Your task to perform on an android device: What's on my calendar tomorrow? Image 0: 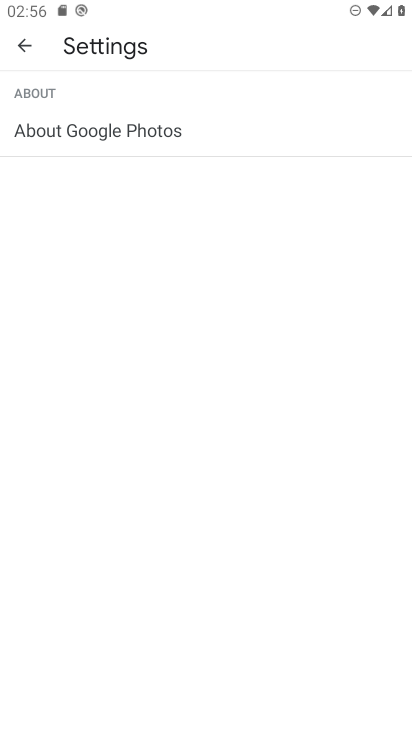
Step 0: press home button
Your task to perform on an android device: What's on my calendar tomorrow? Image 1: 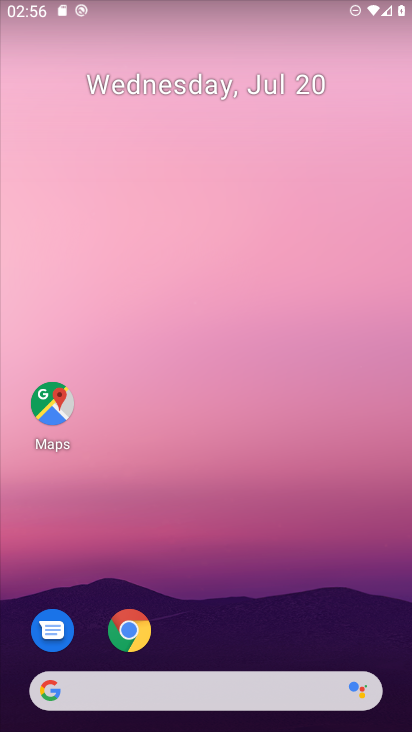
Step 1: drag from (319, 629) to (321, 174)
Your task to perform on an android device: What's on my calendar tomorrow? Image 2: 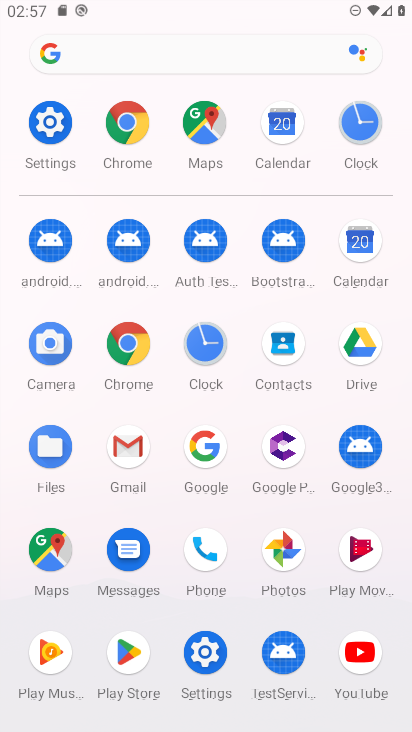
Step 2: click (369, 253)
Your task to perform on an android device: What's on my calendar tomorrow? Image 3: 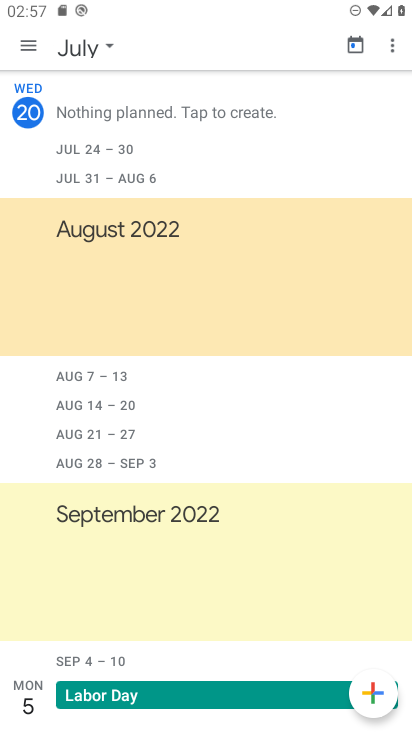
Step 3: drag from (324, 381) to (323, 290)
Your task to perform on an android device: What's on my calendar tomorrow? Image 4: 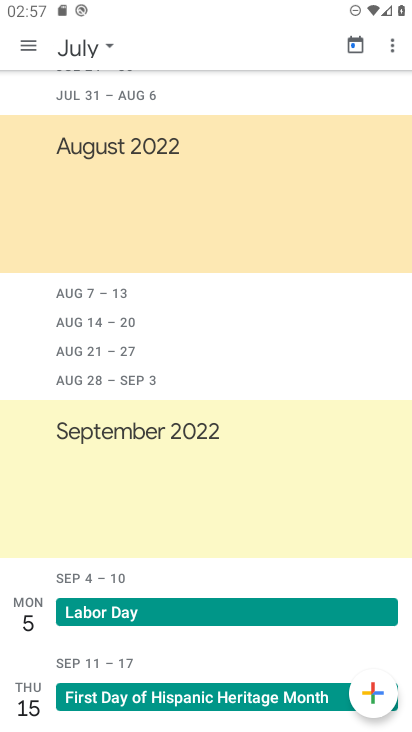
Step 4: drag from (299, 146) to (294, 278)
Your task to perform on an android device: What's on my calendar tomorrow? Image 5: 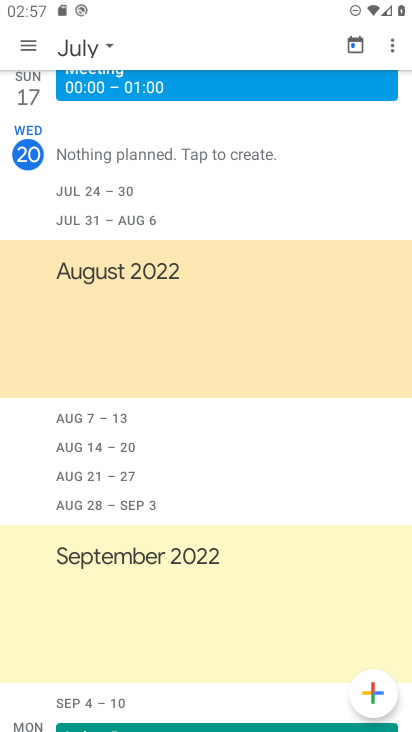
Step 5: click (104, 41)
Your task to perform on an android device: What's on my calendar tomorrow? Image 6: 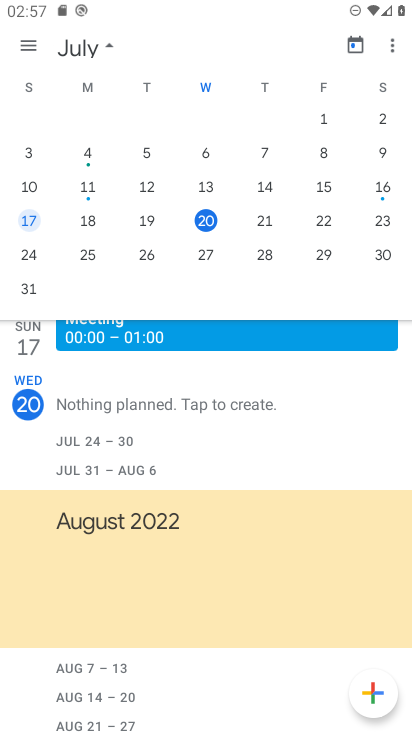
Step 6: click (272, 226)
Your task to perform on an android device: What's on my calendar tomorrow? Image 7: 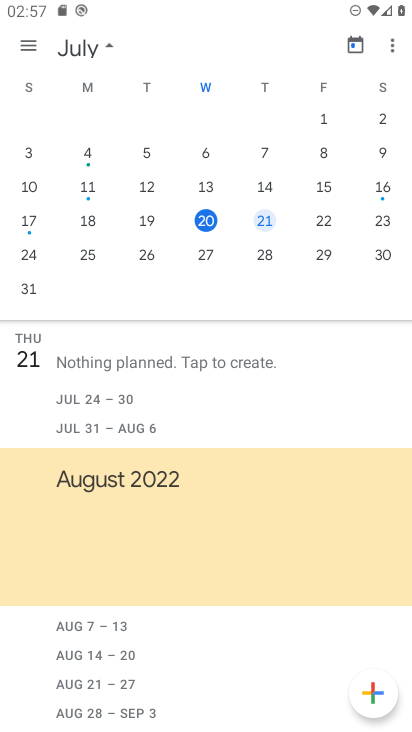
Step 7: task complete